Your task to perform on an android device: toggle pop-ups in chrome Image 0: 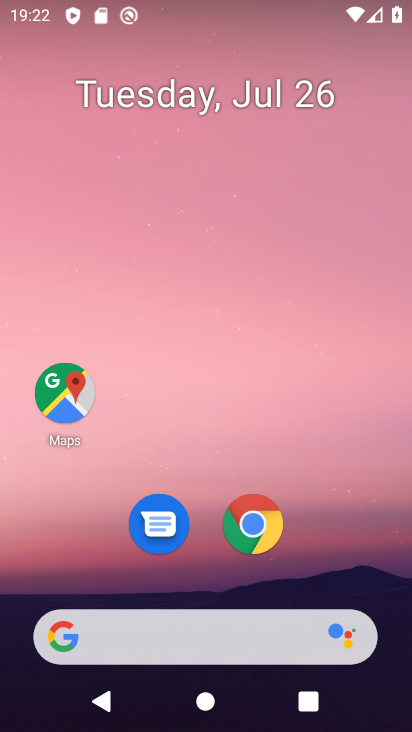
Step 0: click (254, 523)
Your task to perform on an android device: toggle pop-ups in chrome Image 1: 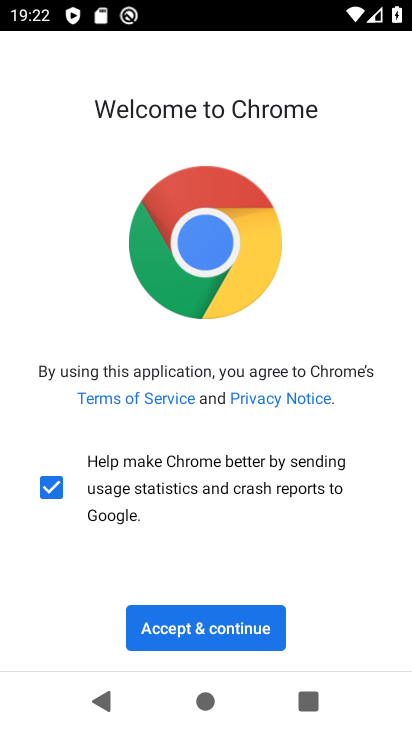
Step 1: click (209, 620)
Your task to perform on an android device: toggle pop-ups in chrome Image 2: 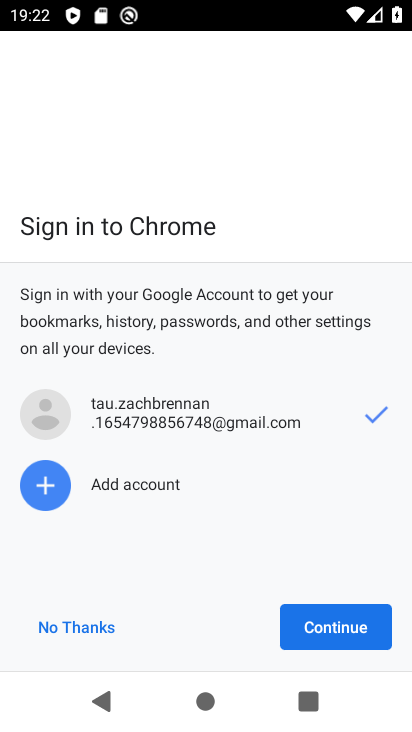
Step 2: click (337, 621)
Your task to perform on an android device: toggle pop-ups in chrome Image 3: 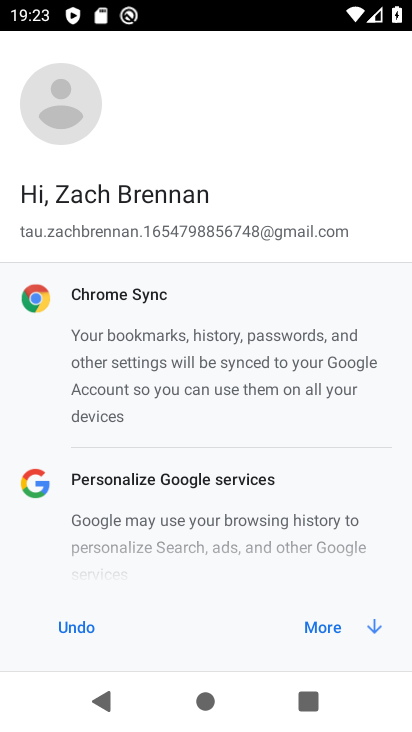
Step 3: click (340, 623)
Your task to perform on an android device: toggle pop-ups in chrome Image 4: 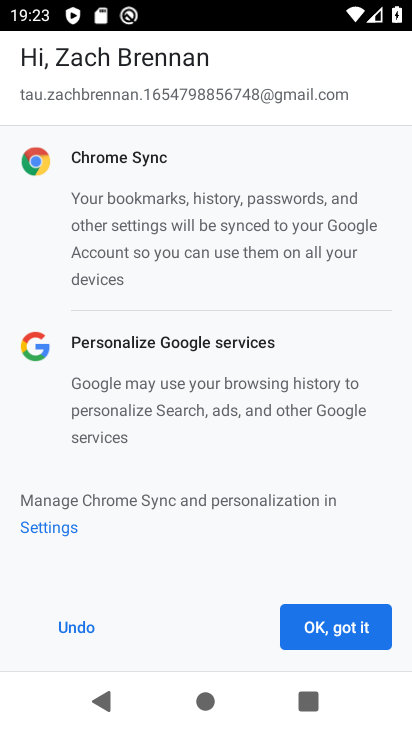
Step 4: click (335, 620)
Your task to perform on an android device: toggle pop-ups in chrome Image 5: 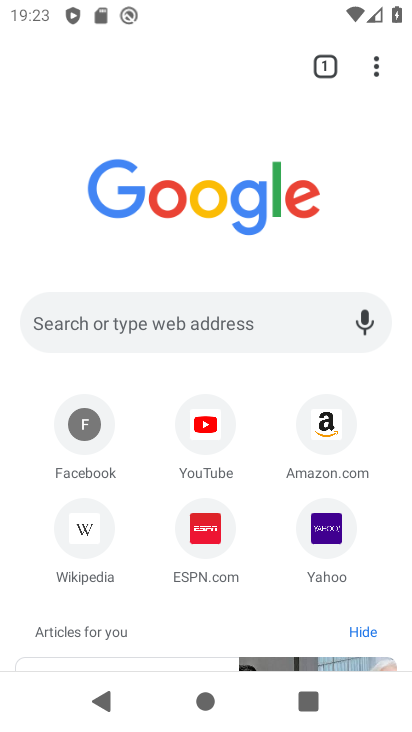
Step 5: click (376, 62)
Your task to perform on an android device: toggle pop-ups in chrome Image 6: 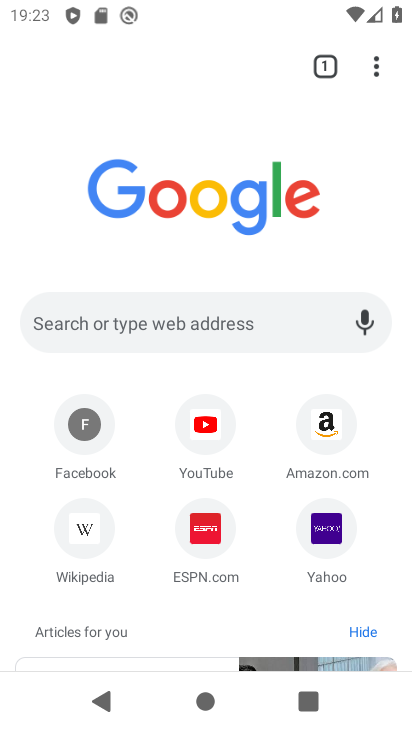
Step 6: drag from (376, 68) to (238, 556)
Your task to perform on an android device: toggle pop-ups in chrome Image 7: 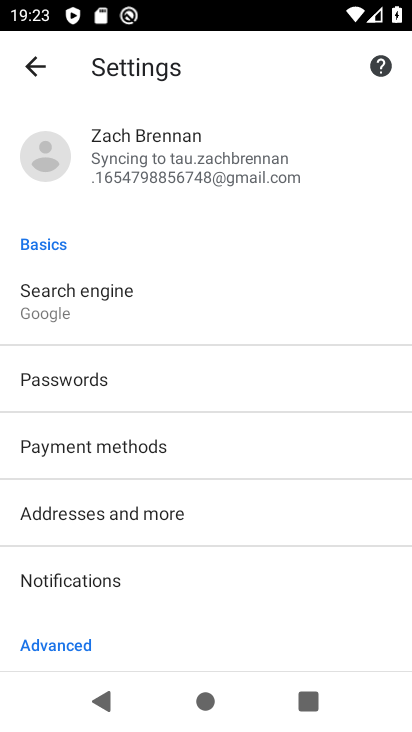
Step 7: drag from (169, 598) to (360, 104)
Your task to perform on an android device: toggle pop-ups in chrome Image 8: 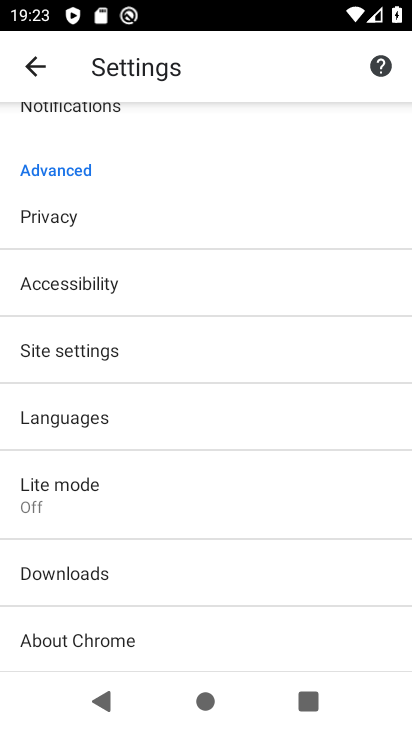
Step 8: click (114, 356)
Your task to perform on an android device: toggle pop-ups in chrome Image 9: 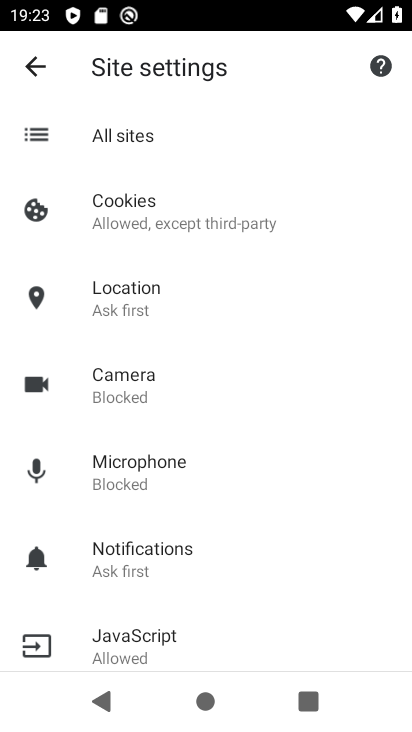
Step 9: drag from (175, 583) to (341, 167)
Your task to perform on an android device: toggle pop-ups in chrome Image 10: 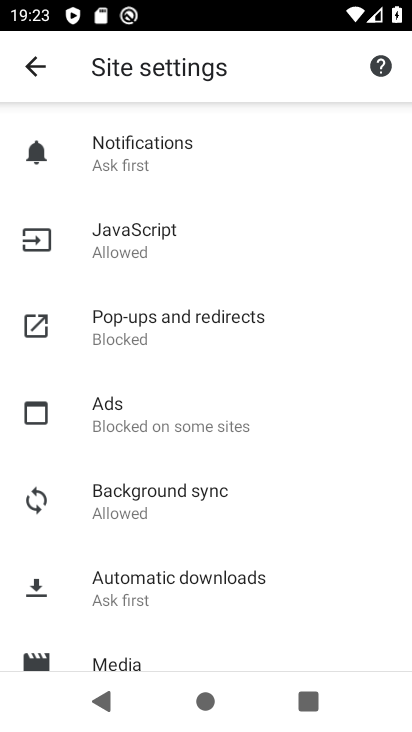
Step 10: click (173, 320)
Your task to perform on an android device: toggle pop-ups in chrome Image 11: 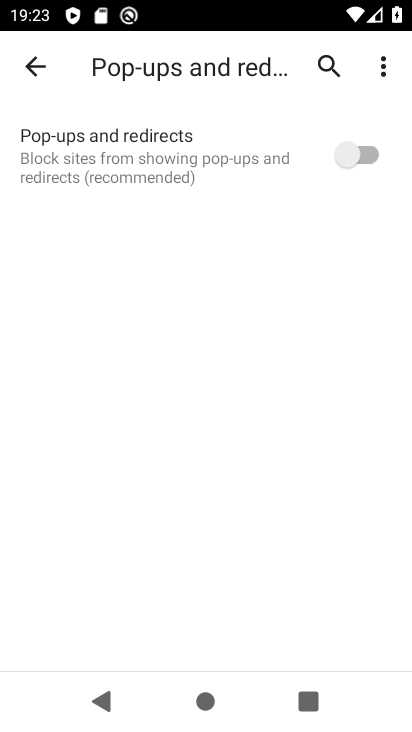
Step 11: click (364, 152)
Your task to perform on an android device: toggle pop-ups in chrome Image 12: 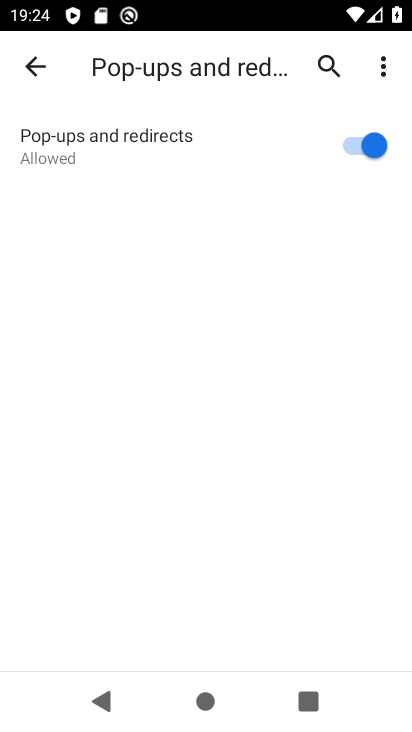
Step 12: task complete